Your task to perform on an android device: toggle sleep mode Image 0: 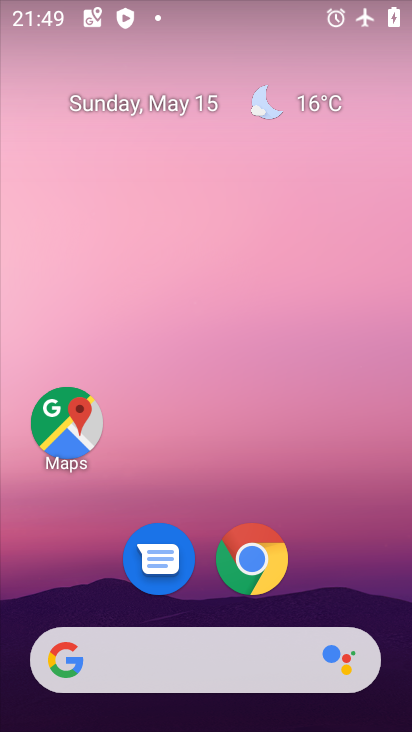
Step 0: drag from (330, 516) to (272, 155)
Your task to perform on an android device: toggle sleep mode Image 1: 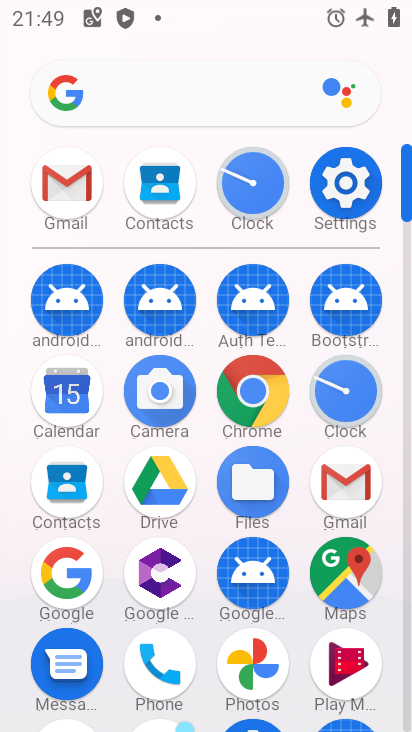
Step 1: click (337, 191)
Your task to perform on an android device: toggle sleep mode Image 2: 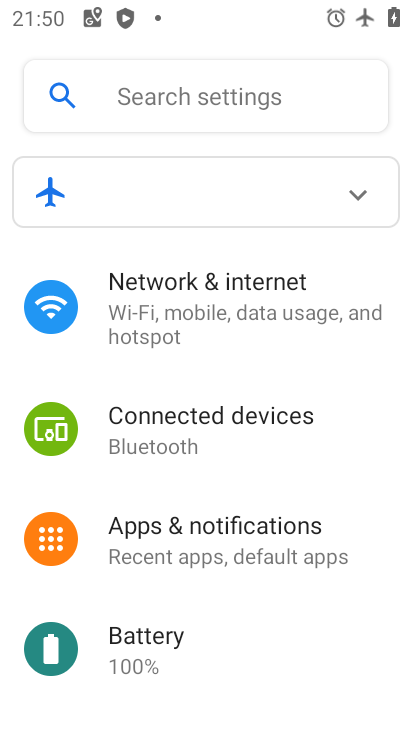
Step 2: task complete